Your task to perform on an android device: see tabs open on other devices in the chrome app Image 0: 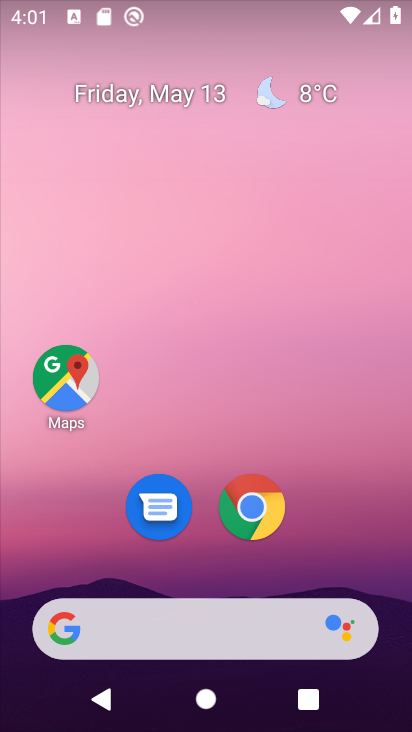
Step 0: click (196, 183)
Your task to perform on an android device: see tabs open on other devices in the chrome app Image 1: 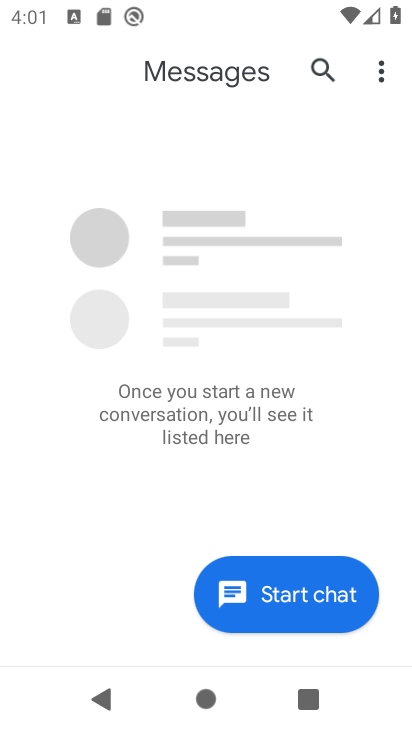
Step 1: press home button
Your task to perform on an android device: see tabs open on other devices in the chrome app Image 2: 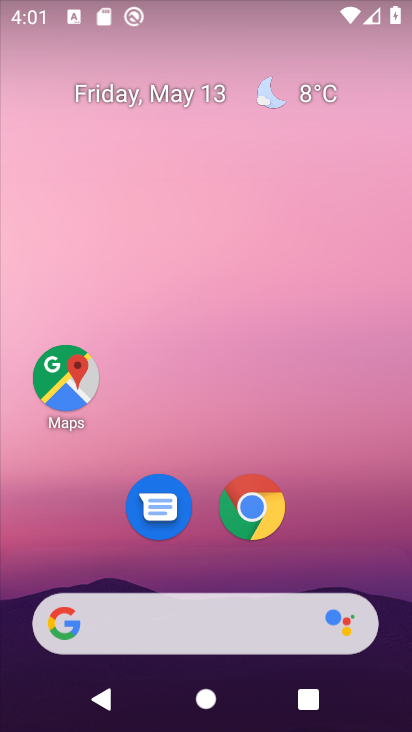
Step 2: drag from (309, 529) to (323, 5)
Your task to perform on an android device: see tabs open on other devices in the chrome app Image 3: 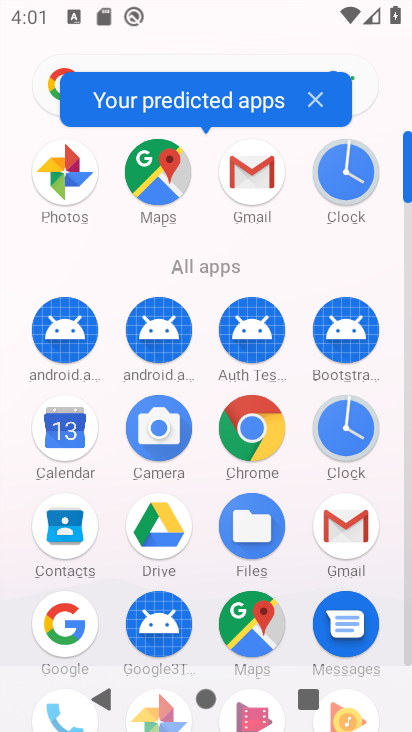
Step 3: click (253, 427)
Your task to perform on an android device: see tabs open on other devices in the chrome app Image 4: 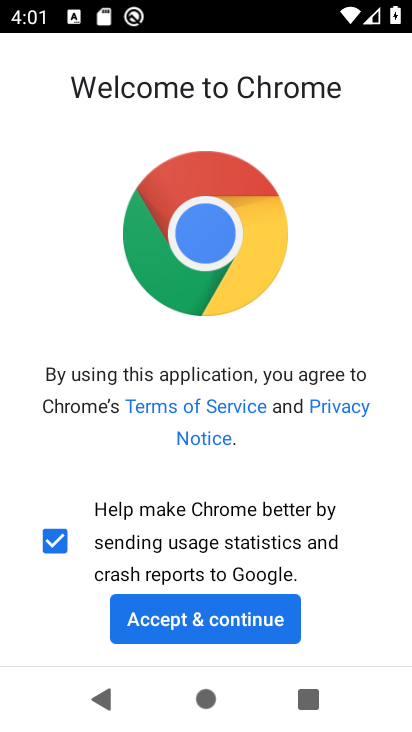
Step 4: click (247, 637)
Your task to perform on an android device: see tabs open on other devices in the chrome app Image 5: 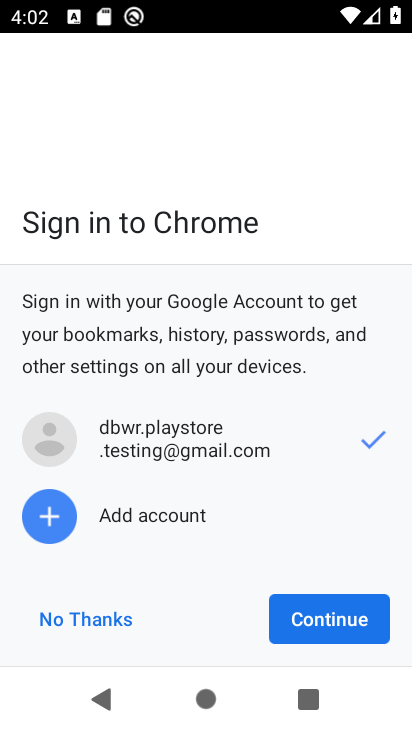
Step 5: click (330, 622)
Your task to perform on an android device: see tabs open on other devices in the chrome app Image 6: 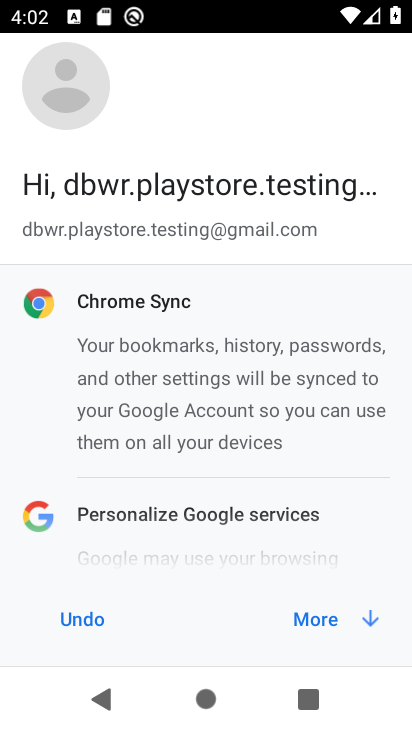
Step 6: click (330, 622)
Your task to perform on an android device: see tabs open on other devices in the chrome app Image 7: 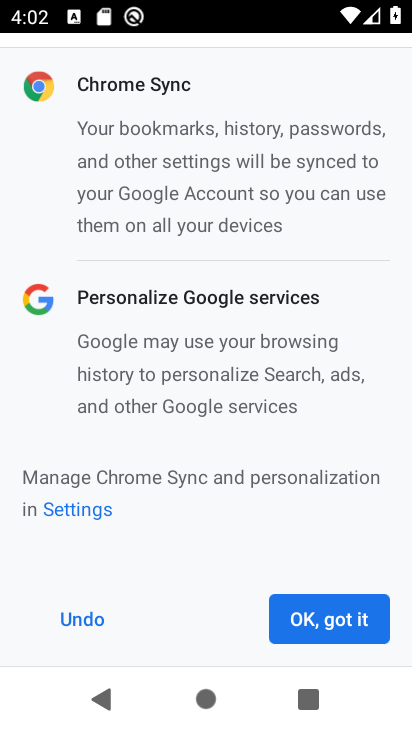
Step 7: click (330, 622)
Your task to perform on an android device: see tabs open on other devices in the chrome app Image 8: 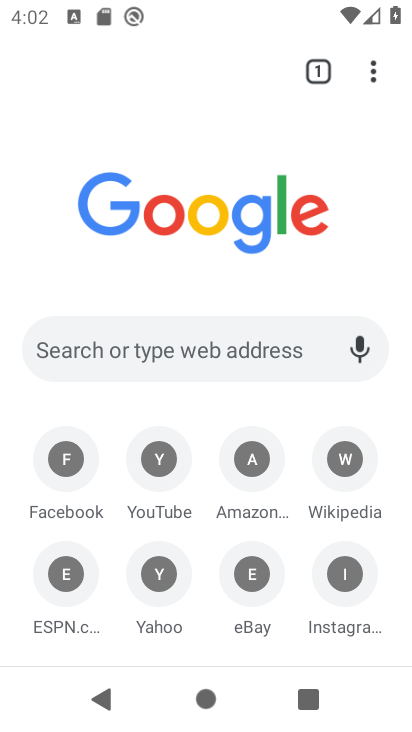
Step 8: task complete